Your task to perform on an android device: delete the emails in spam in the gmail app Image 0: 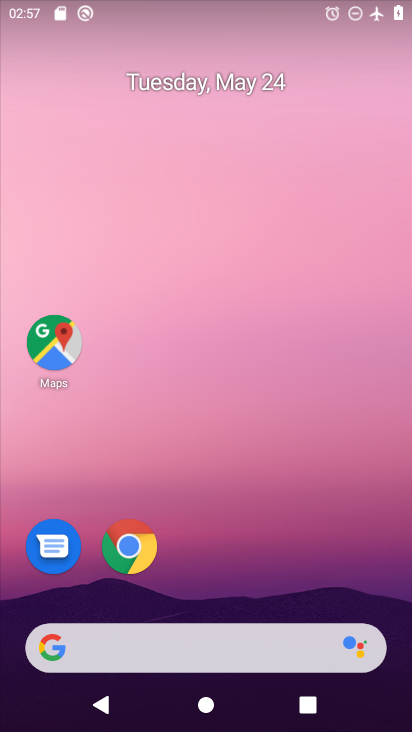
Step 0: drag from (230, 228) to (206, 120)
Your task to perform on an android device: delete the emails in spam in the gmail app Image 1: 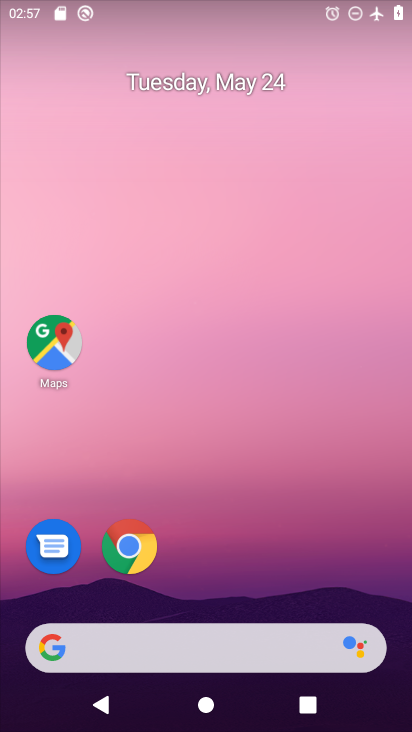
Step 1: drag from (286, 604) to (261, 18)
Your task to perform on an android device: delete the emails in spam in the gmail app Image 2: 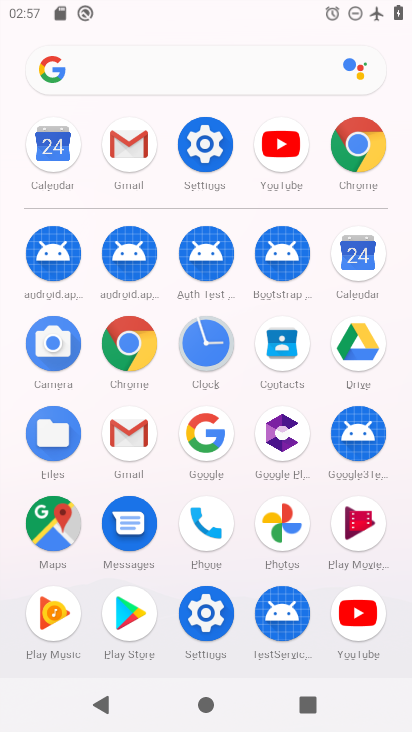
Step 2: click (130, 437)
Your task to perform on an android device: delete the emails in spam in the gmail app Image 3: 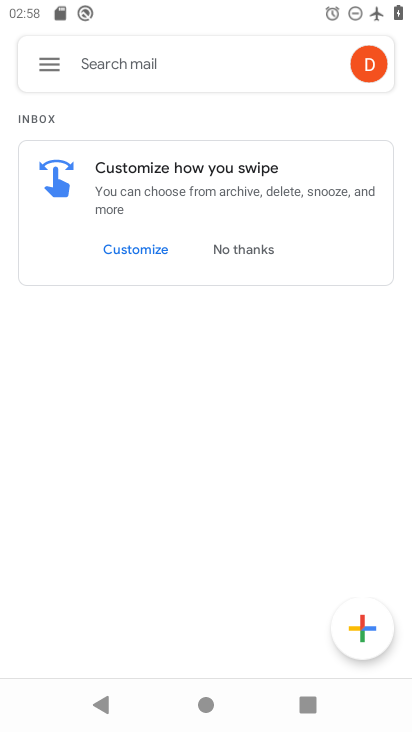
Step 3: click (50, 51)
Your task to perform on an android device: delete the emails in spam in the gmail app Image 4: 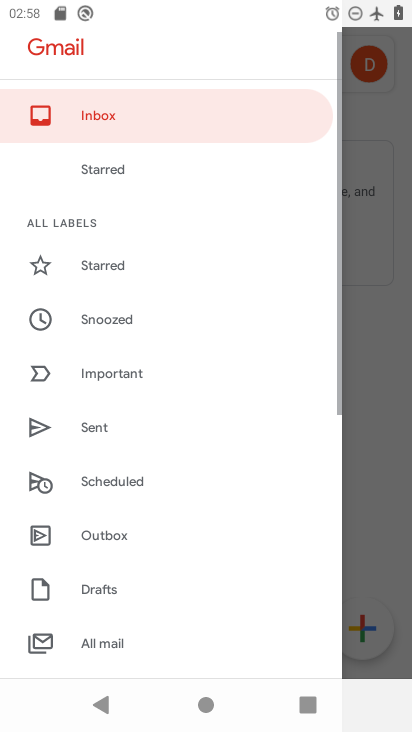
Step 4: drag from (126, 572) to (194, 76)
Your task to perform on an android device: delete the emails in spam in the gmail app Image 5: 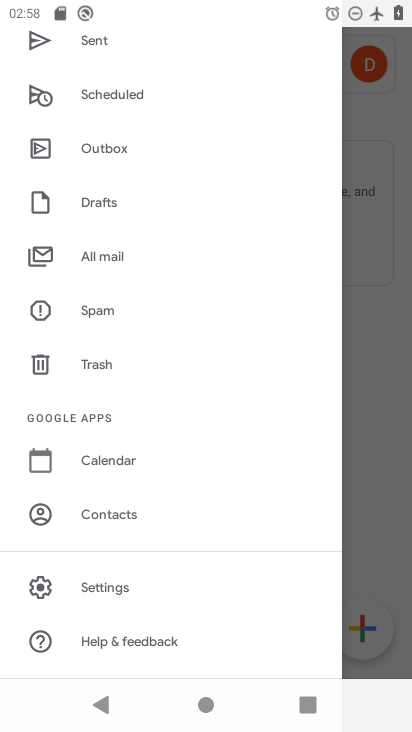
Step 5: click (122, 299)
Your task to perform on an android device: delete the emails in spam in the gmail app Image 6: 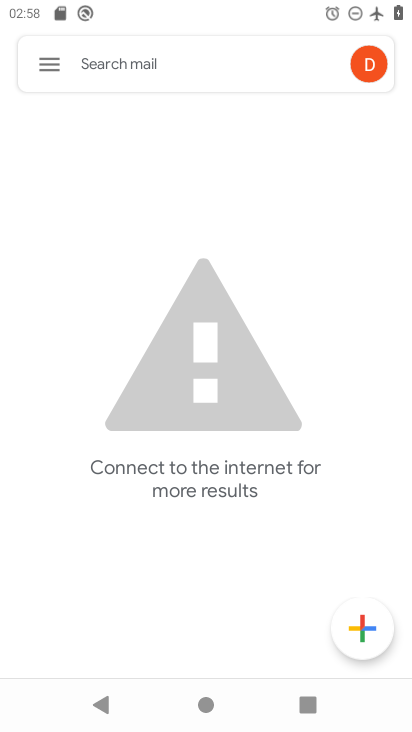
Step 6: task complete